Your task to perform on an android device: toggle translation in the chrome app Image 0: 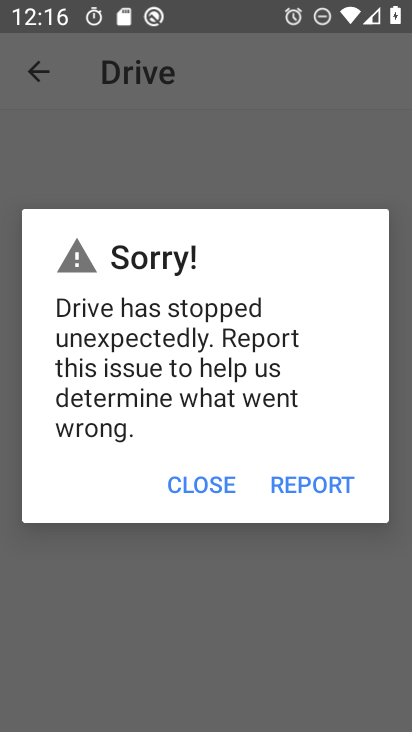
Step 0: click (171, 485)
Your task to perform on an android device: toggle translation in the chrome app Image 1: 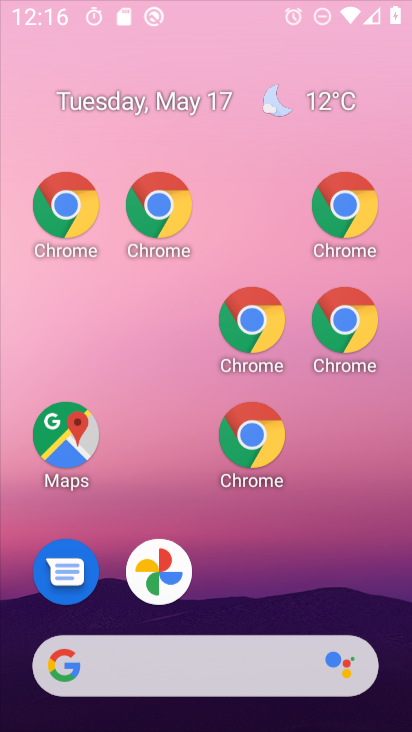
Step 1: click (188, 484)
Your task to perform on an android device: toggle translation in the chrome app Image 2: 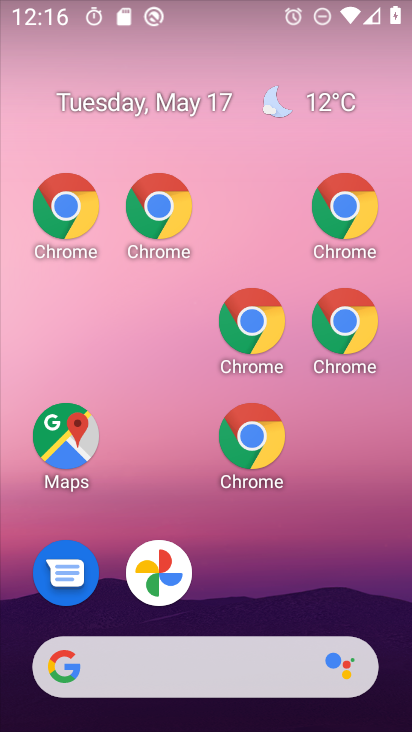
Step 2: drag from (342, 600) to (281, 105)
Your task to perform on an android device: toggle translation in the chrome app Image 3: 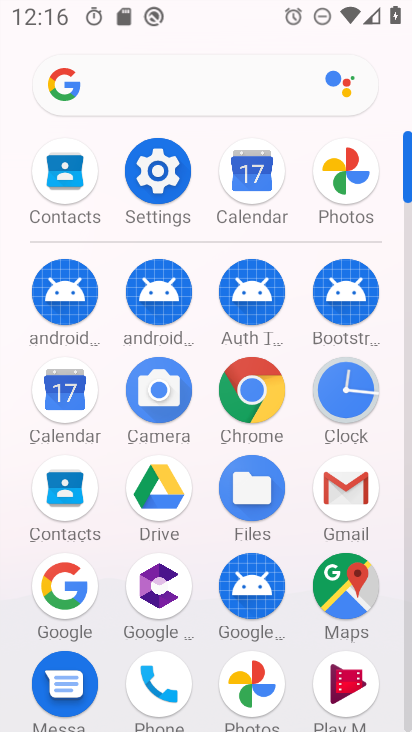
Step 3: click (246, 400)
Your task to perform on an android device: toggle translation in the chrome app Image 4: 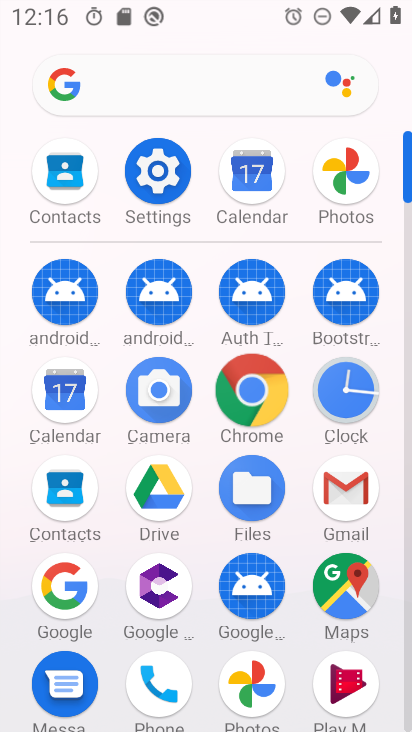
Step 4: click (247, 399)
Your task to perform on an android device: toggle translation in the chrome app Image 5: 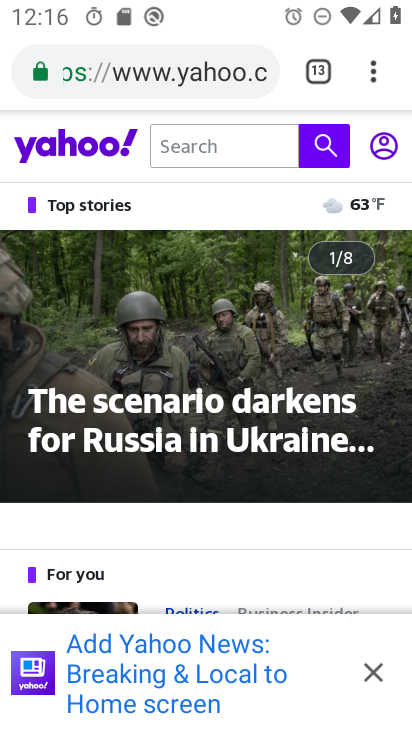
Step 5: drag from (368, 75) to (139, 554)
Your task to perform on an android device: toggle translation in the chrome app Image 6: 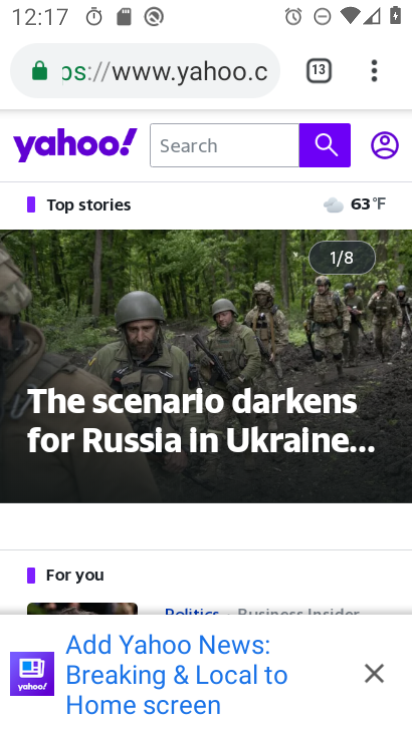
Step 6: click (147, 564)
Your task to perform on an android device: toggle translation in the chrome app Image 7: 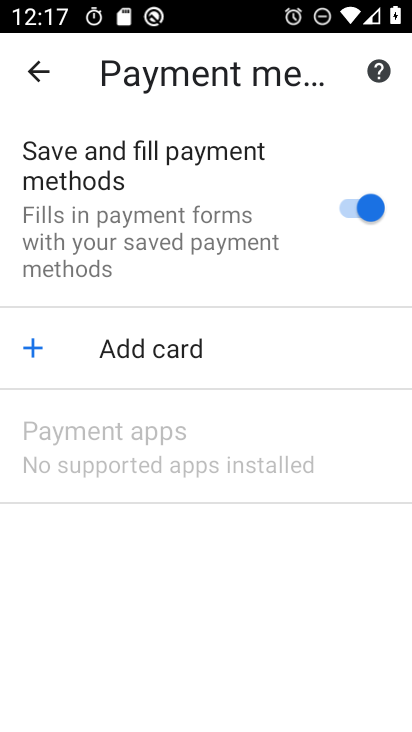
Step 7: click (29, 69)
Your task to perform on an android device: toggle translation in the chrome app Image 8: 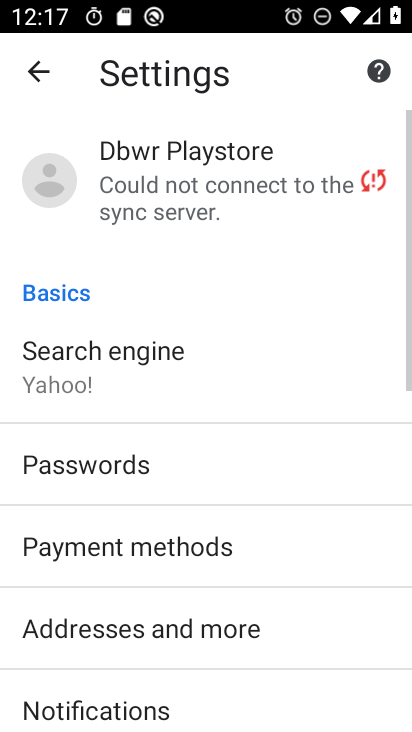
Step 8: drag from (167, 471) to (200, 91)
Your task to perform on an android device: toggle translation in the chrome app Image 9: 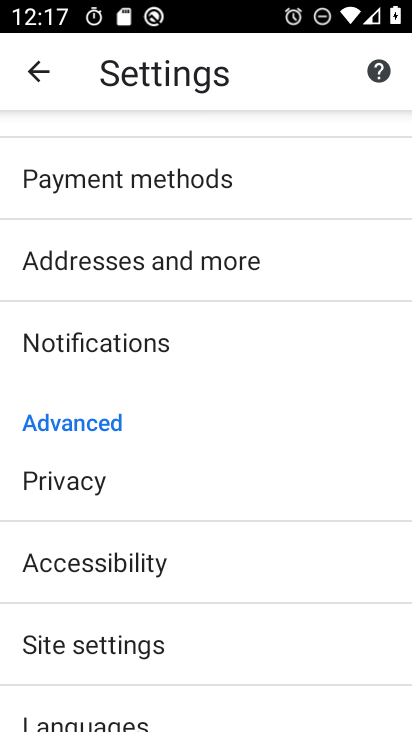
Step 9: click (108, 713)
Your task to perform on an android device: toggle translation in the chrome app Image 10: 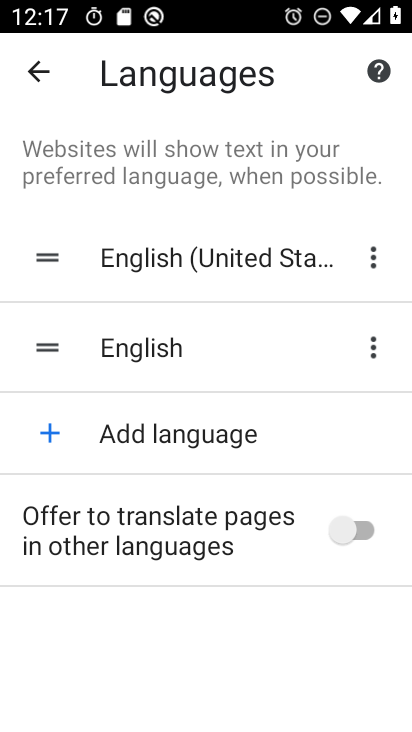
Step 10: click (345, 517)
Your task to perform on an android device: toggle translation in the chrome app Image 11: 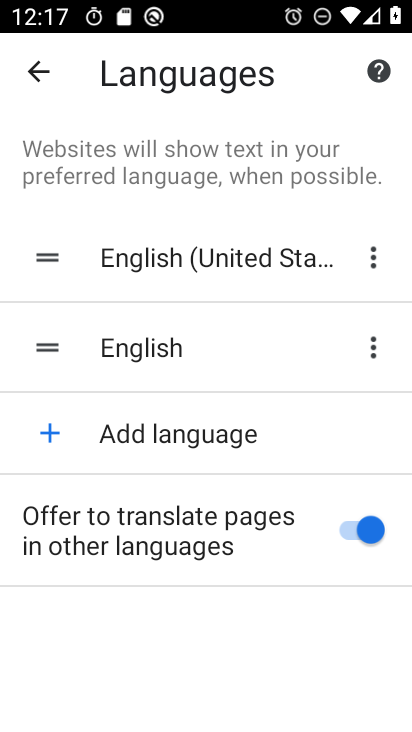
Step 11: task complete